Your task to perform on an android device: search for starred emails in the gmail app Image 0: 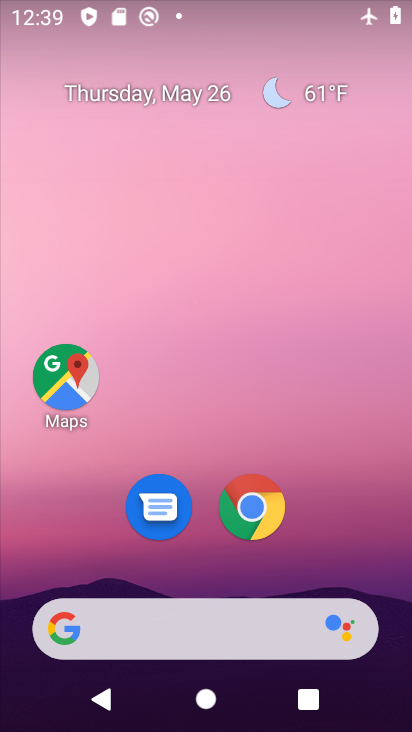
Step 0: click (392, 507)
Your task to perform on an android device: search for starred emails in the gmail app Image 1: 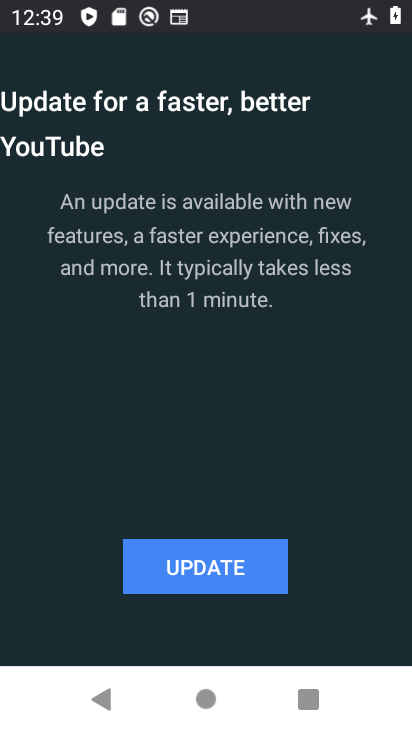
Step 1: press home button
Your task to perform on an android device: search for starred emails in the gmail app Image 2: 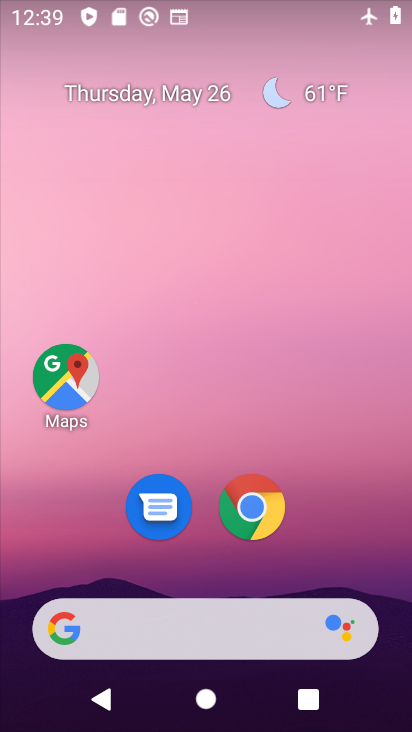
Step 2: drag from (362, 557) to (285, 11)
Your task to perform on an android device: search for starred emails in the gmail app Image 3: 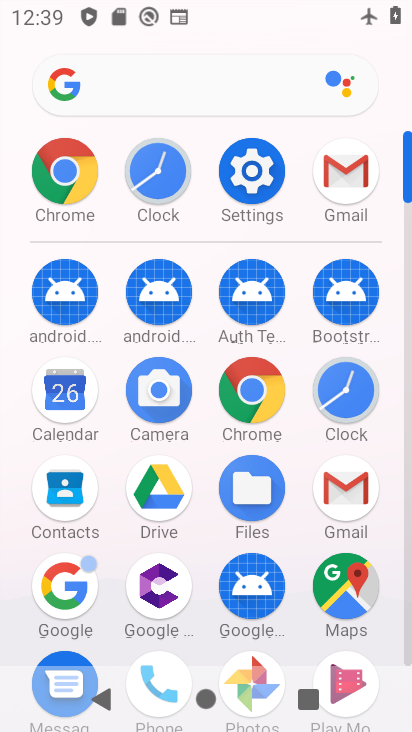
Step 3: click (355, 185)
Your task to perform on an android device: search for starred emails in the gmail app Image 4: 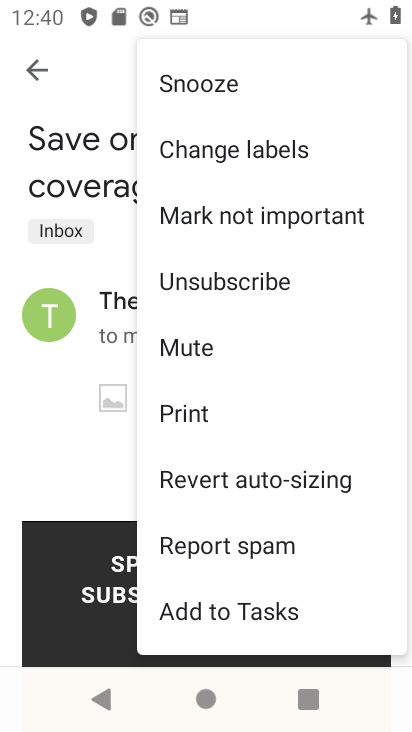
Step 4: click (51, 414)
Your task to perform on an android device: search for starred emails in the gmail app Image 5: 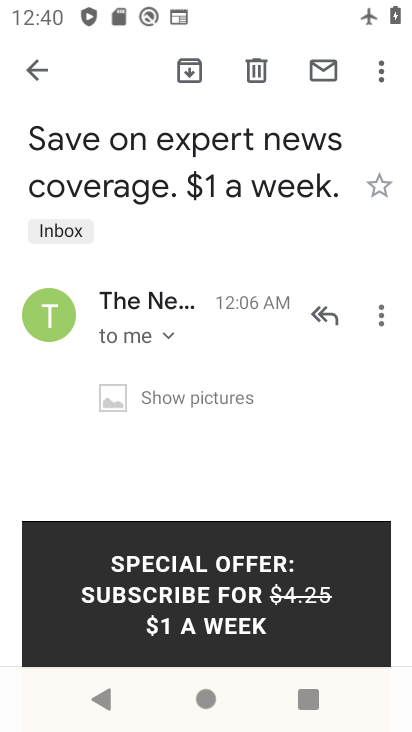
Step 5: click (38, 73)
Your task to perform on an android device: search for starred emails in the gmail app Image 6: 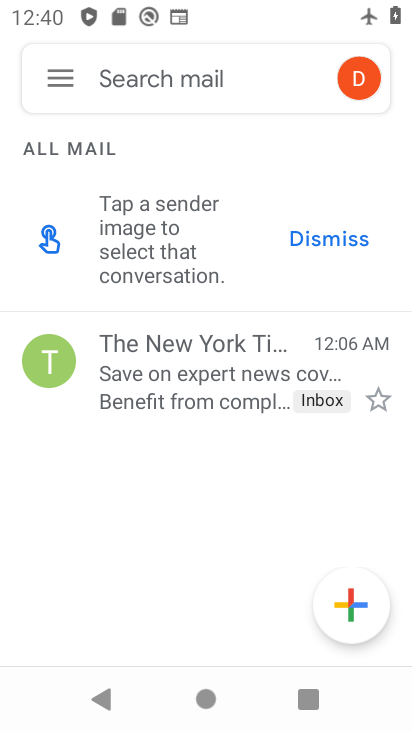
Step 6: click (38, 73)
Your task to perform on an android device: search for starred emails in the gmail app Image 7: 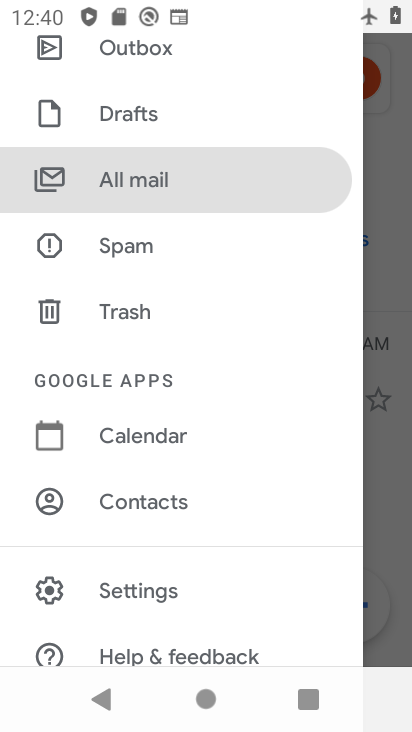
Step 7: drag from (153, 143) to (180, 257)
Your task to perform on an android device: search for starred emails in the gmail app Image 8: 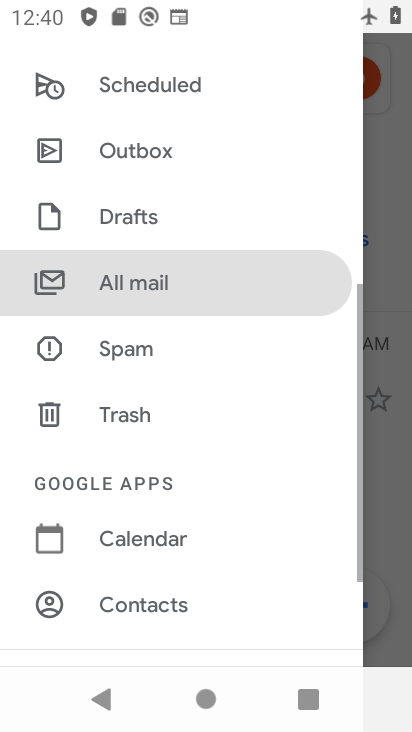
Step 8: drag from (212, 202) to (222, 531)
Your task to perform on an android device: search for starred emails in the gmail app Image 9: 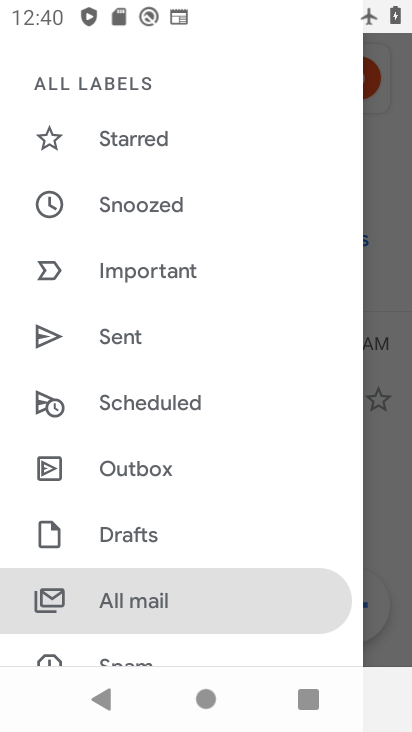
Step 9: click (150, 135)
Your task to perform on an android device: search for starred emails in the gmail app Image 10: 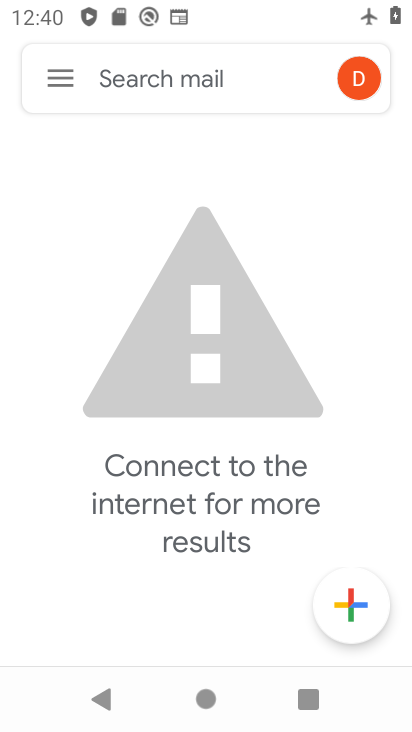
Step 10: task complete